Your task to perform on an android device: delete the emails in spam in the gmail app Image 0: 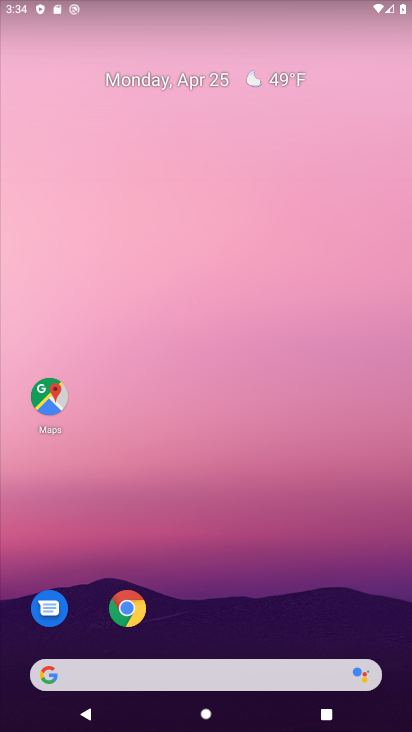
Step 0: drag from (275, 435) to (193, 19)
Your task to perform on an android device: delete the emails in spam in the gmail app Image 1: 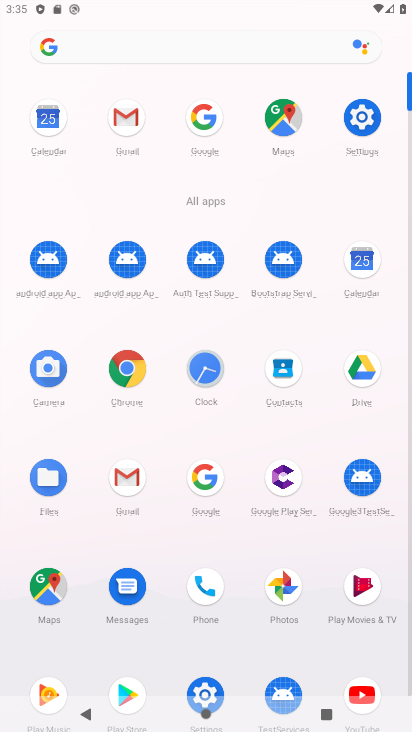
Step 1: click (141, 488)
Your task to perform on an android device: delete the emails in spam in the gmail app Image 2: 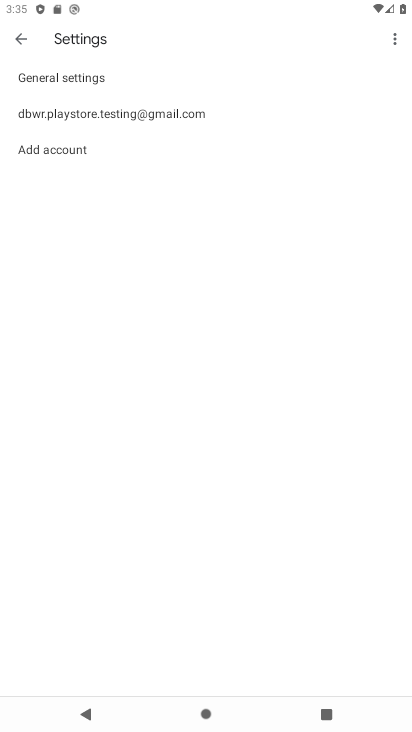
Step 2: click (25, 49)
Your task to perform on an android device: delete the emails in spam in the gmail app Image 3: 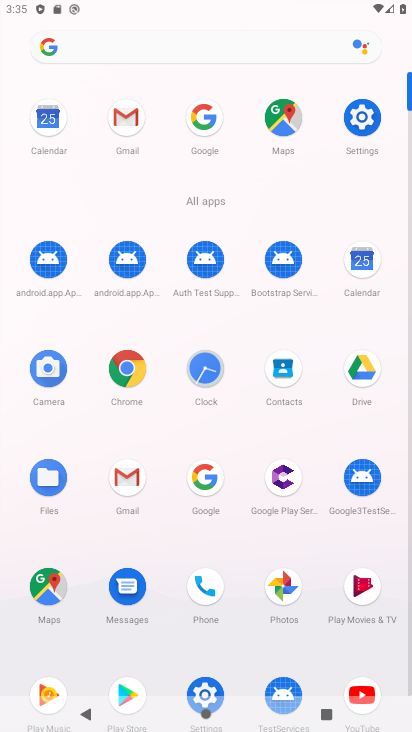
Step 3: click (129, 497)
Your task to perform on an android device: delete the emails in spam in the gmail app Image 4: 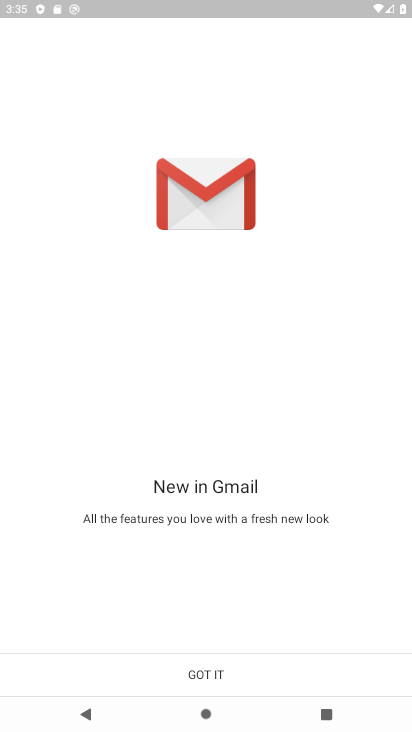
Step 4: click (189, 680)
Your task to perform on an android device: delete the emails in spam in the gmail app Image 5: 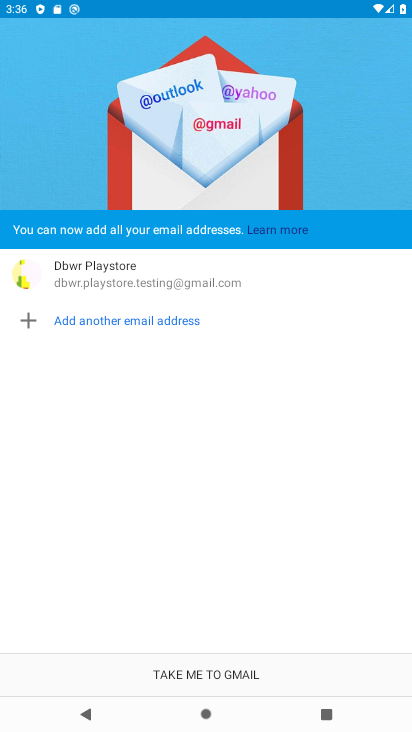
Step 5: click (171, 689)
Your task to perform on an android device: delete the emails in spam in the gmail app Image 6: 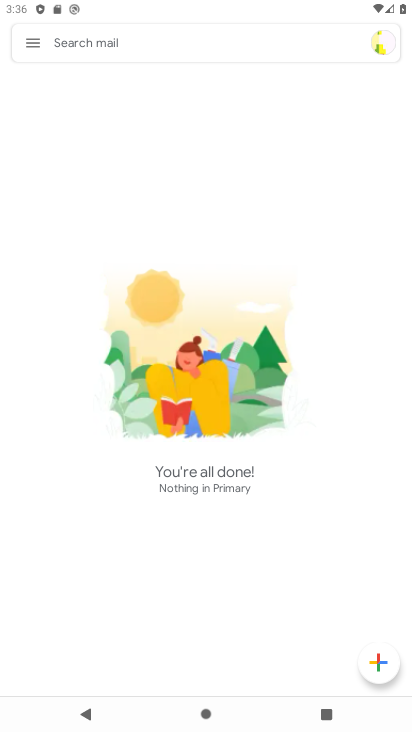
Step 6: click (34, 47)
Your task to perform on an android device: delete the emails in spam in the gmail app Image 7: 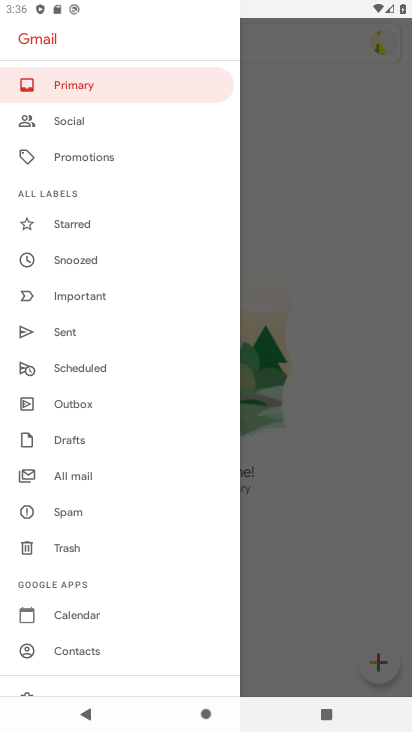
Step 7: click (82, 510)
Your task to perform on an android device: delete the emails in spam in the gmail app Image 8: 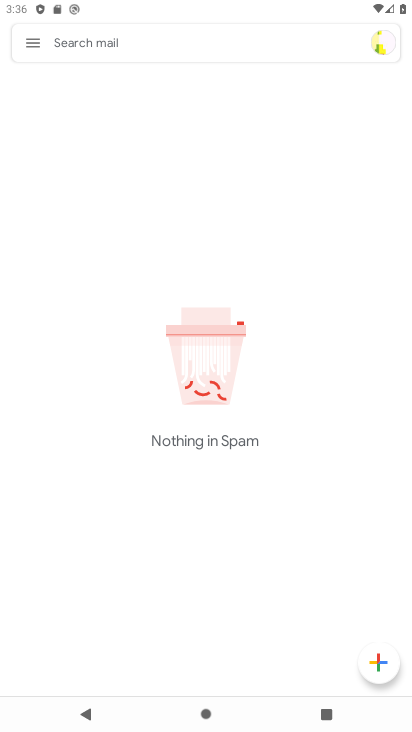
Step 8: click (31, 452)
Your task to perform on an android device: delete the emails in spam in the gmail app Image 9: 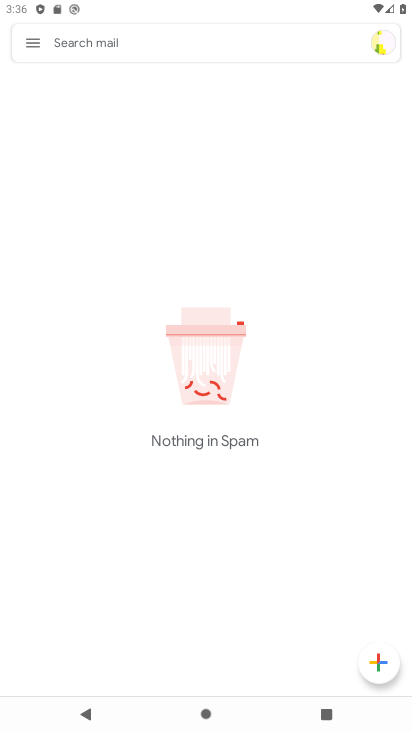
Step 9: task complete